Your task to perform on an android device: Go to calendar. Show me events next week Image 0: 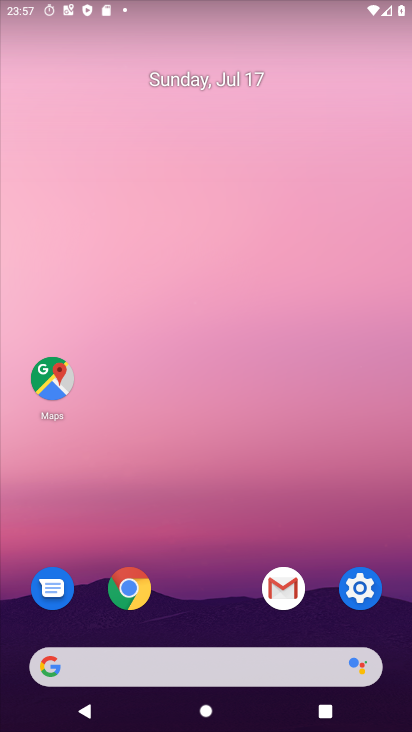
Step 0: press home button
Your task to perform on an android device: Go to calendar. Show me events next week Image 1: 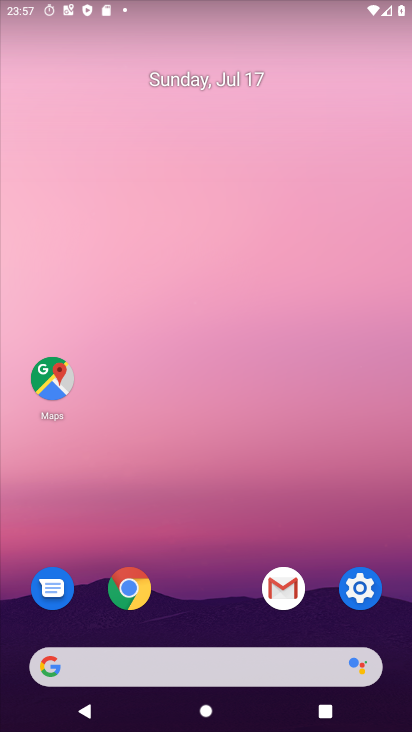
Step 1: drag from (333, 681) to (40, 58)
Your task to perform on an android device: Go to calendar. Show me events next week Image 2: 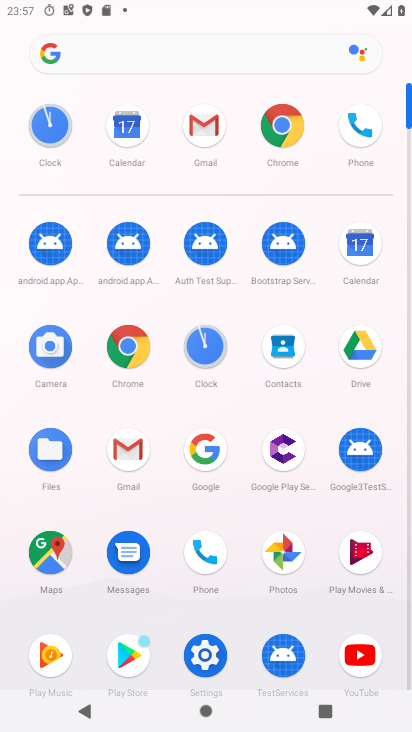
Step 2: click (360, 259)
Your task to perform on an android device: Go to calendar. Show me events next week Image 3: 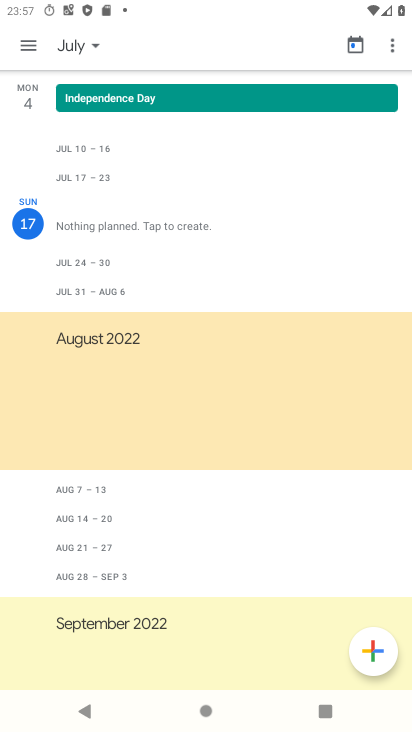
Step 3: click (32, 49)
Your task to perform on an android device: Go to calendar. Show me events next week Image 4: 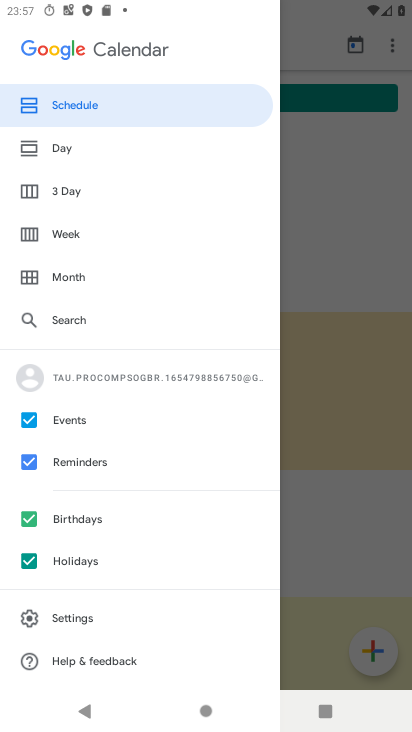
Step 4: click (84, 283)
Your task to perform on an android device: Go to calendar. Show me events next week Image 5: 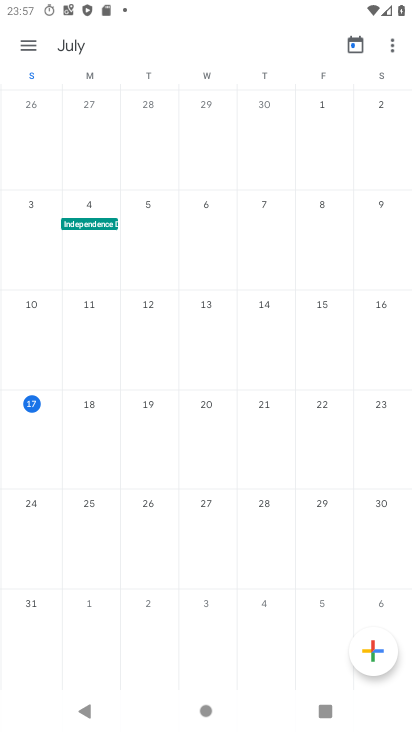
Step 5: click (35, 534)
Your task to perform on an android device: Go to calendar. Show me events next week Image 6: 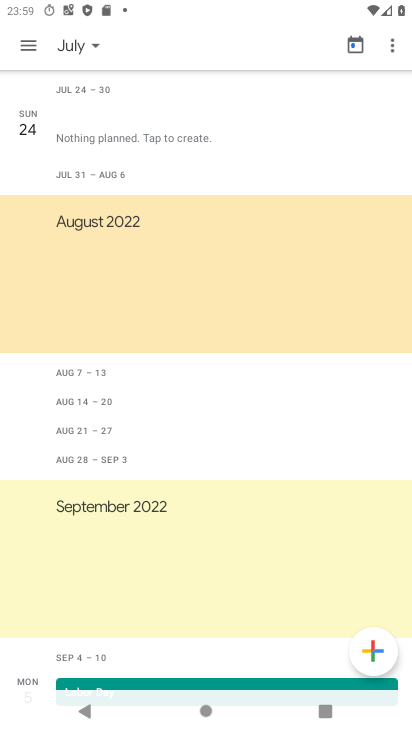
Step 6: task complete